Your task to perform on an android device: delete browsing data in the chrome app Image 0: 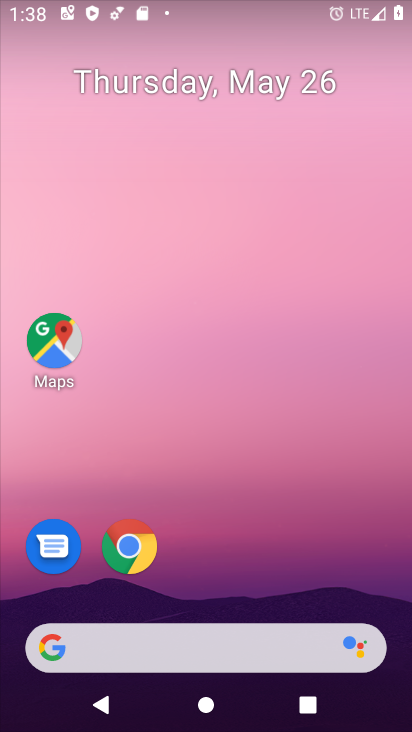
Step 0: drag from (393, 615) to (298, 44)
Your task to perform on an android device: delete browsing data in the chrome app Image 1: 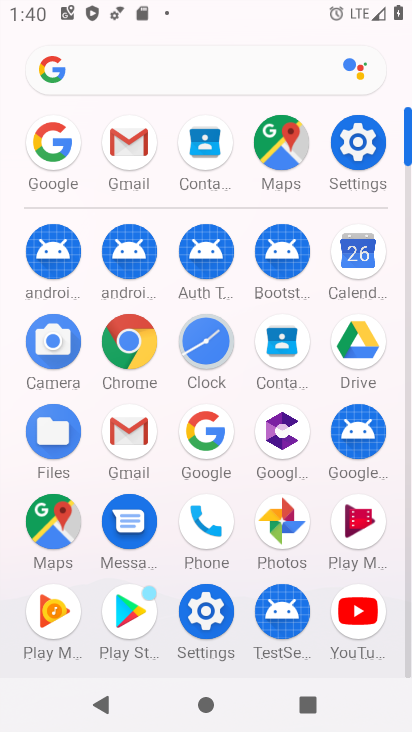
Step 1: click (133, 331)
Your task to perform on an android device: delete browsing data in the chrome app Image 2: 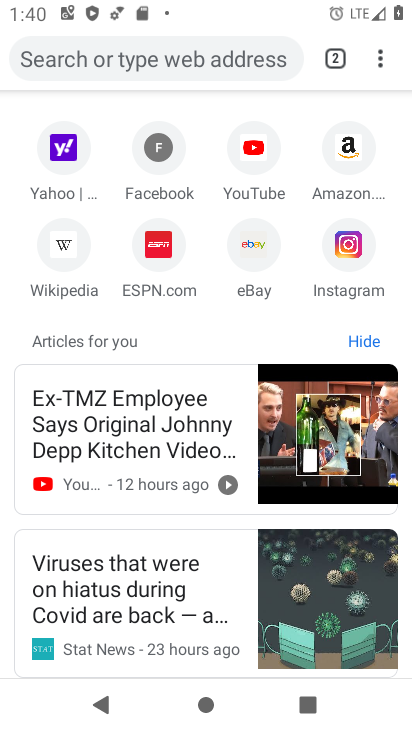
Step 2: click (377, 59)
Your task to perform on an android device: delete browsing data in the chrome app Image 3: 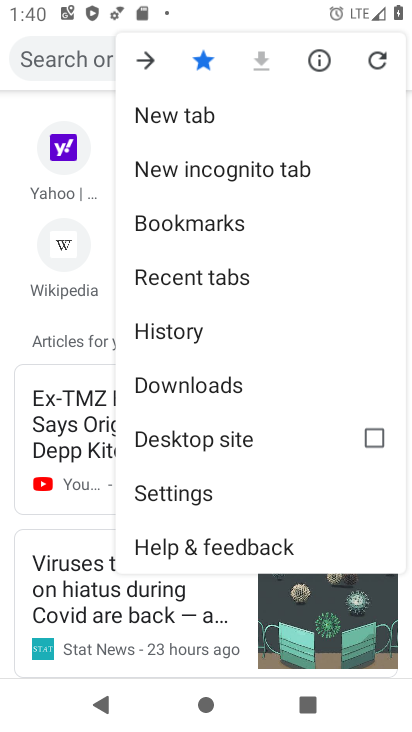
Step 3: click (205, 333)
Your task to perform on an android device: delete browsing data in the chrome app Image 4: 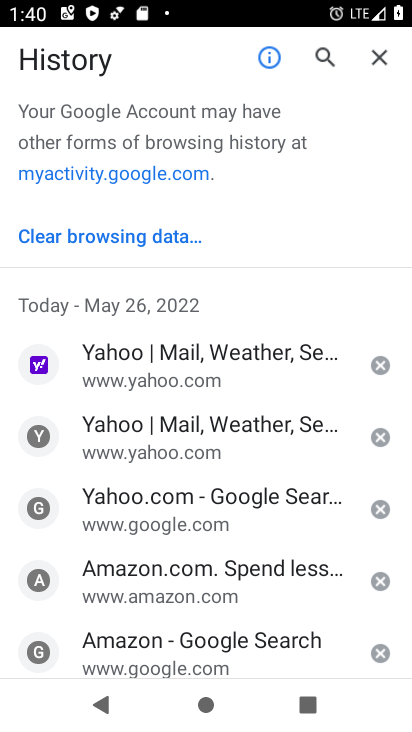
Step 4: click (113, 235)
Your task to perform on an android device: delete browsing data in the chrome app Image 5: 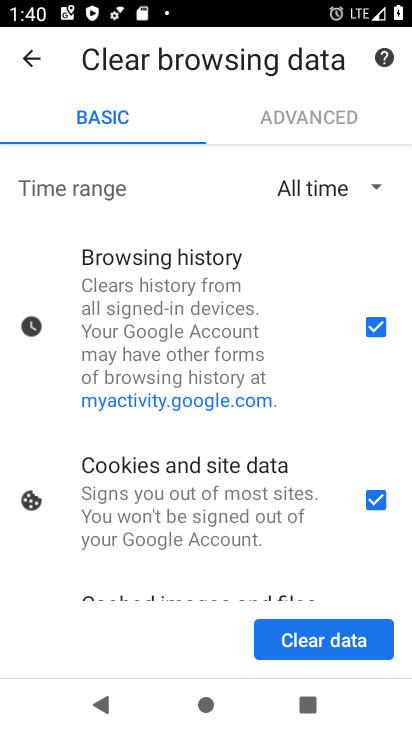
Step 5: click (326, 635)
Your task to perform on an android device: delete browsing data in the chrome app Image 6: 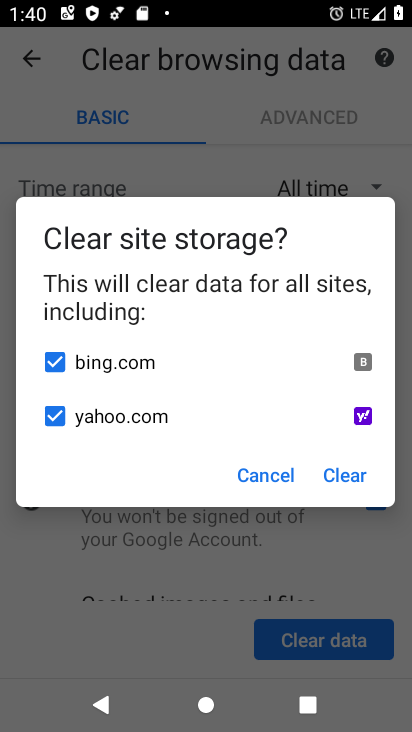
Step 6: click (342, 477)
Your task to perform on an android device: delete browsing data in the chrome app Image 7: 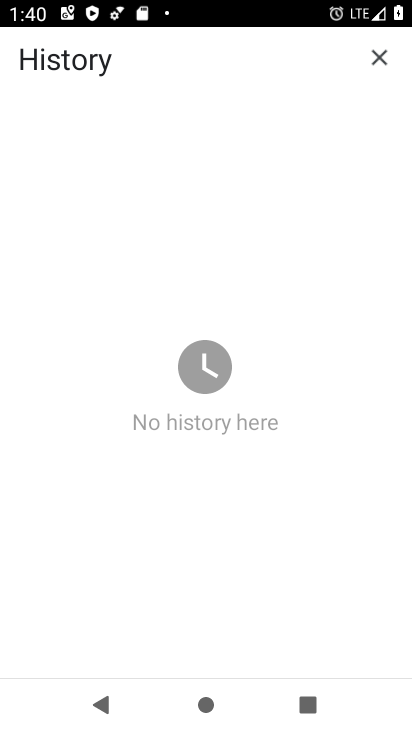
Step 7: task complete